Your task to perform on an android device: clear all cookies in the chrome app Image 0: 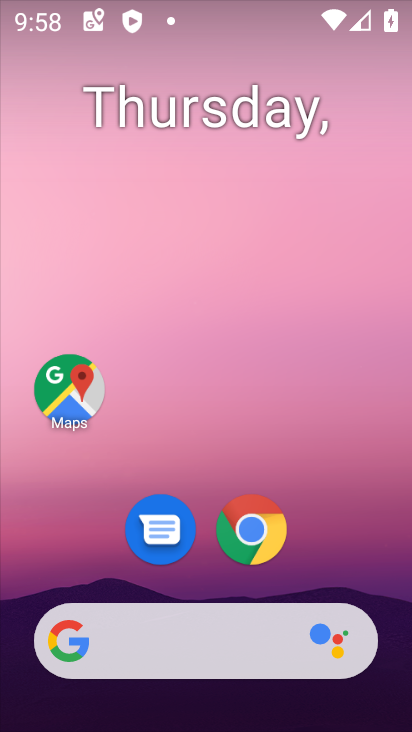
Step 0: click (258, 527)
Your task to perform on an android device: clear all cookies in the chrome app Image 1: 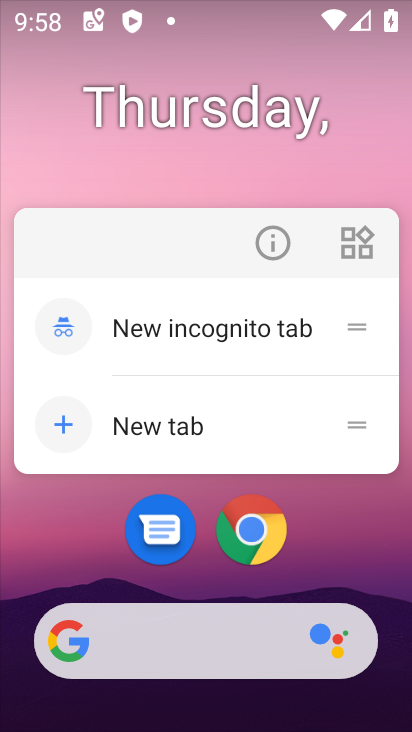
Step 1: click (258, 527)
Your task to perform on an android device: clear all cookies in the chrome app Image 2: 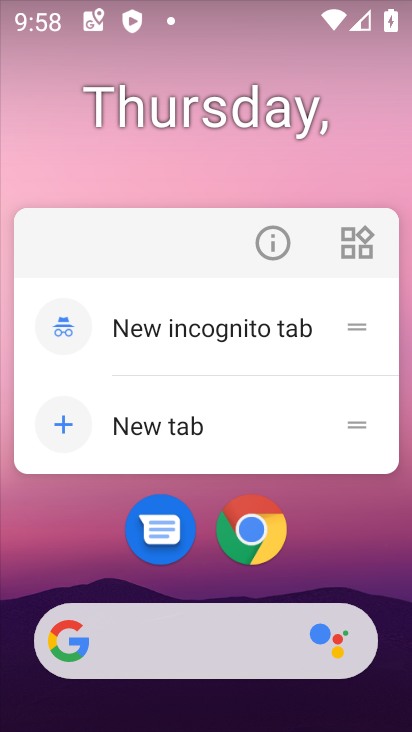
Step 2: click (246, 537)
Your task to perform on an android device: clear all cookies in the chrome app Image 3: 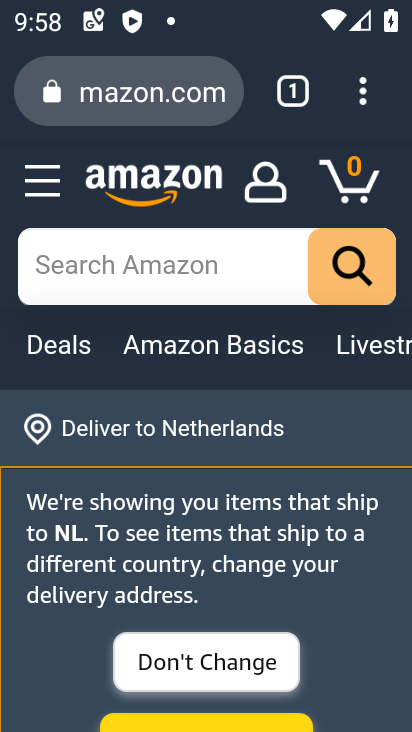
Step 3: click (373, 80)
Your task to perform on an android device: clear all cookies in the chrome app Image 4: 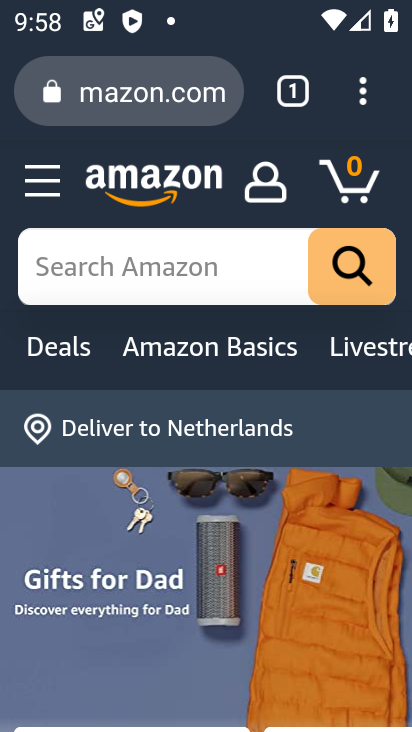
Step 4: click (373, 86)
Your task to perform on an android device: clear all cookies in the chrome app Image 5: 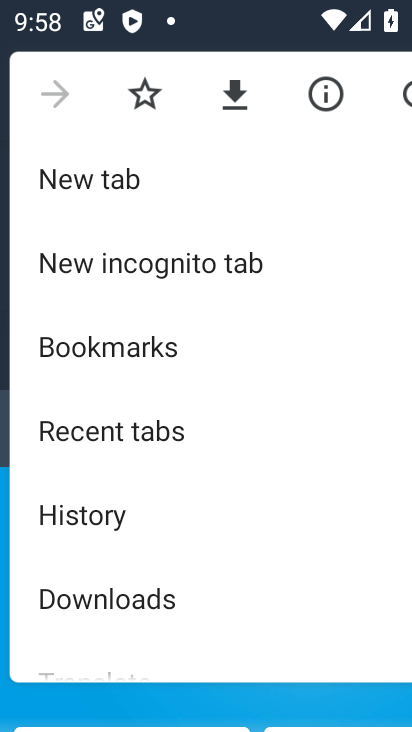
Step 5: drag from (162, 612) to (120, 282)
Your task to perform on an android device: clear all cookies in the chrome app Image 6: 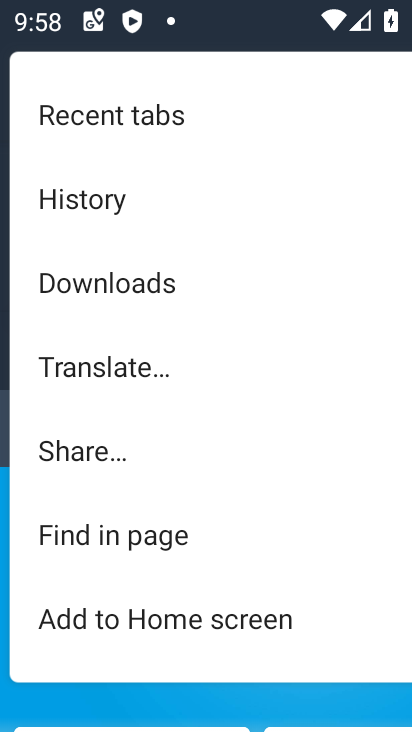
Step 6: click (112, 197)
Your task to perform on an android device: clear all cookies in the chrome app Image 7: 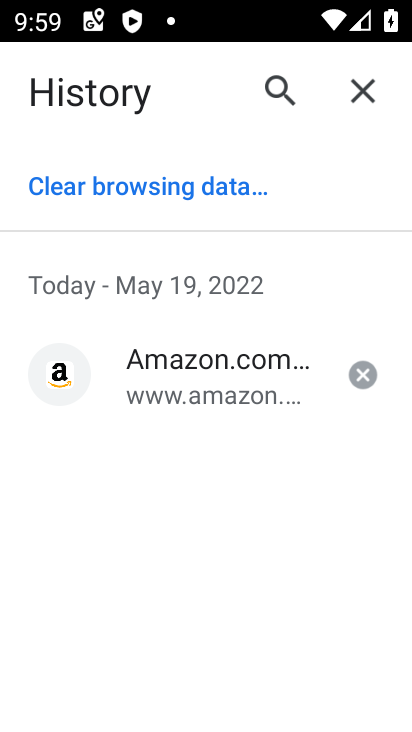
Step 7: click (125, 193)
Your task to perform on an android device: clear all cookies in the chrome app Image 8: 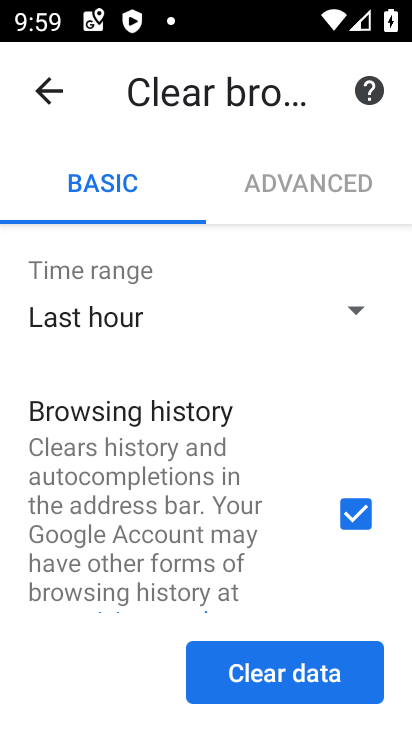
Step 8: click (308, 542)
Your task to perform on an android device: clear all cookies in the chrome app Image 9: 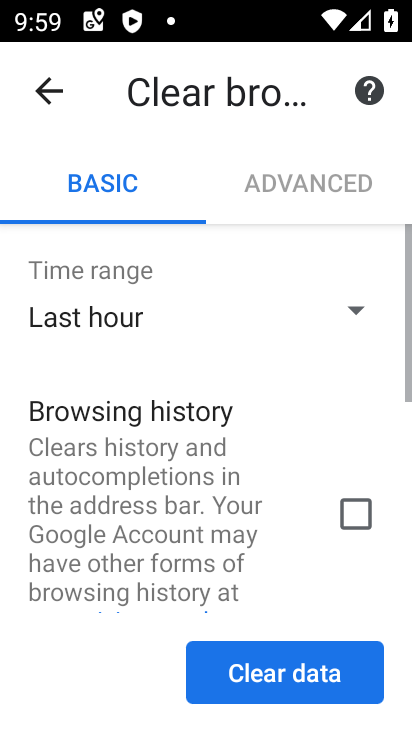
Step 9: drag from (202, 553) to (188, 248)
Your task to perform on an android device: clear all cookies in the chrome app Image 10: 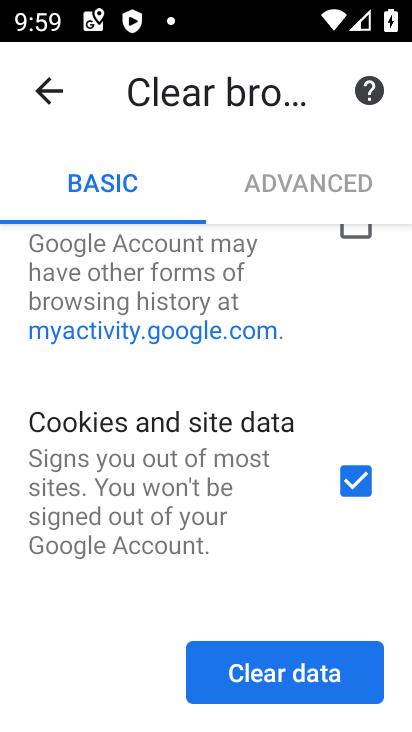
Step 10: drag from (260, 564) to (261, 303)
Your task to perform on an android device: clear all cookies in the chrome app Image 11: 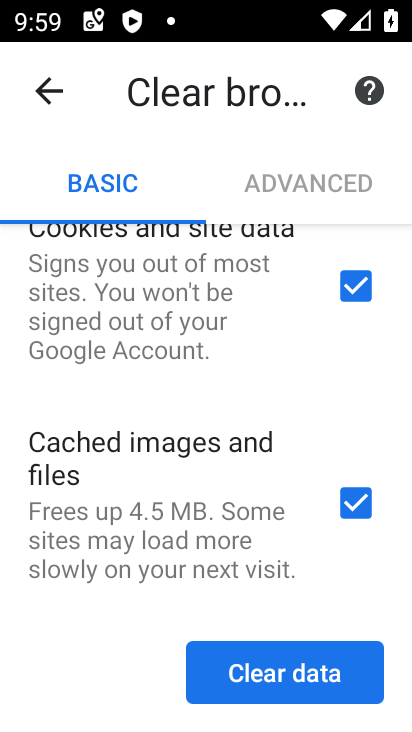
Step 11: click (309, 488)
Your task to perform on an android device: clear all cookies in the chrome app Image 12: 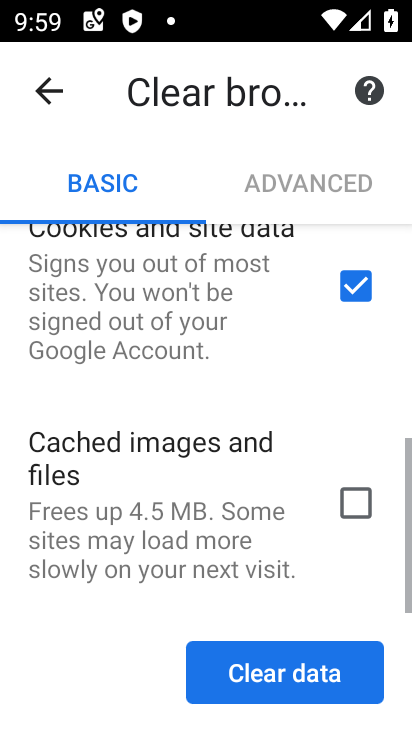
Step 12: click (271, 675)
Your task to perform on an android device: clear all cookies in the chrome app Image 13: 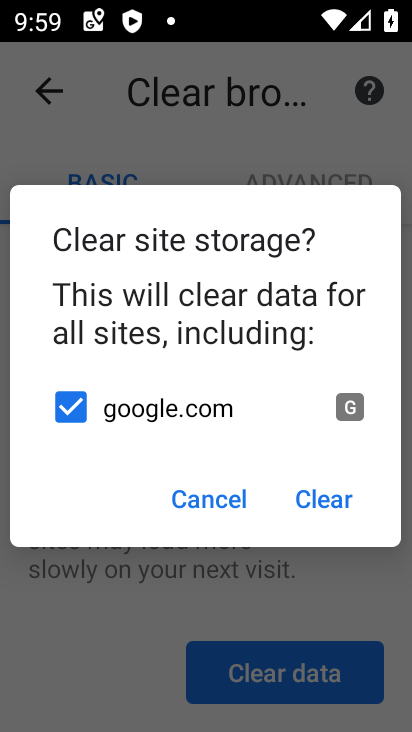
Step 13: click (310, 496)
Your task to perform on an android device: clear all cookies in the chrome app Image 14: 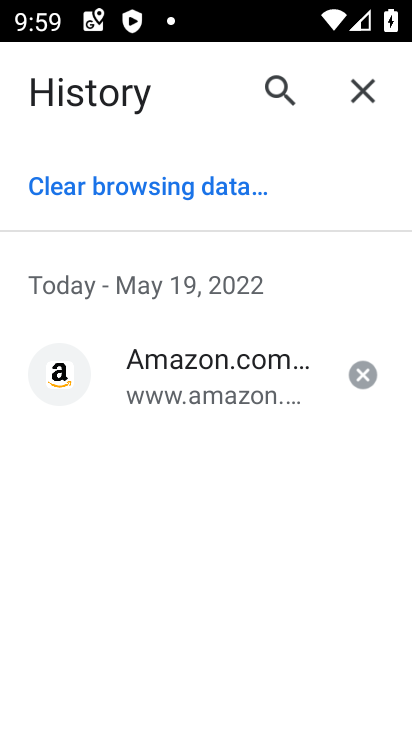
Step 14: task complete